Your task to perform on an android device: Open settings Image 0: 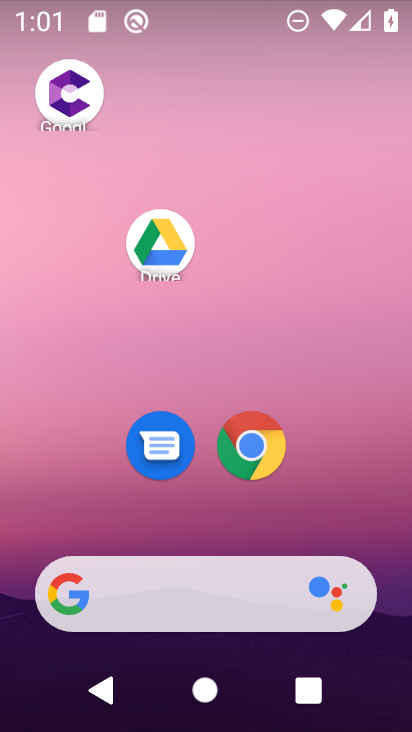
Step 0: drag from (254, 527) to (308, 44)
Your task to perform on an android device: Open settings Image 1: 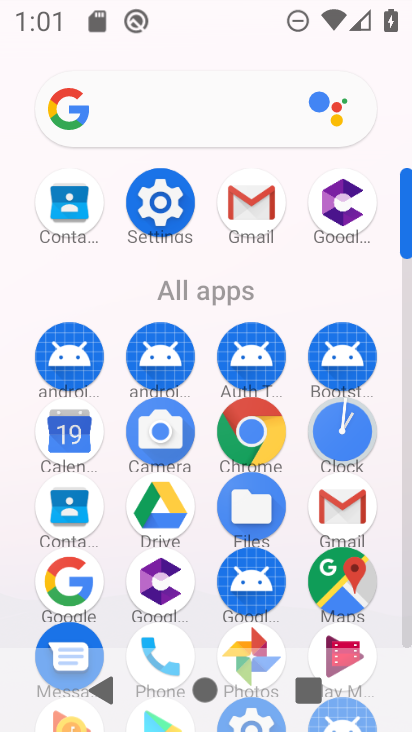
Step 1: click (166, 205)
Your task to perform on an android device: Open settings Image 2: 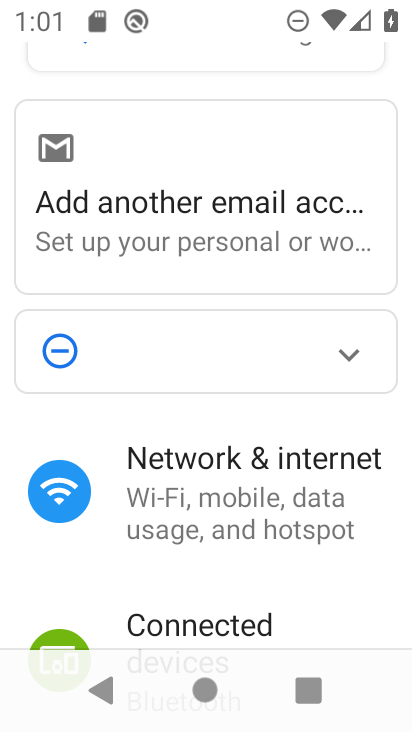
Step 2: task complete